Your task to perform on an android device: Open maps Image 0: 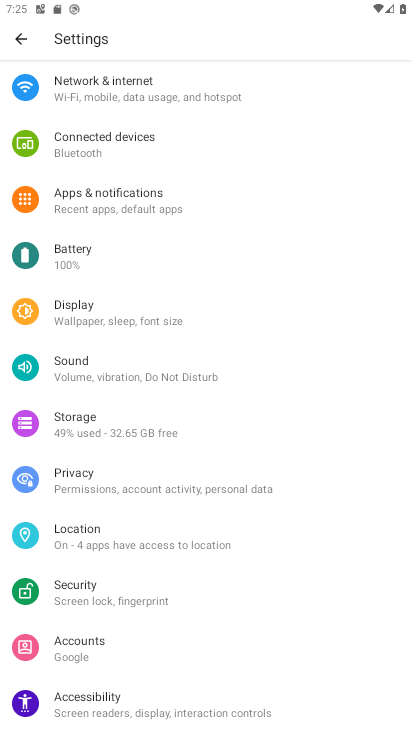
Step 0: press home button
Your task to perform on an android device: Open maps Image 1: 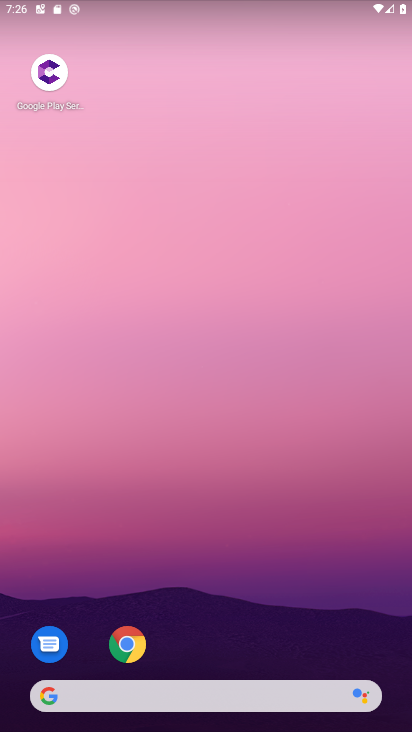
Step 1: drag from (254, 659) to (241, 182)
Your task to perform on an android device: Open maps Image 2: 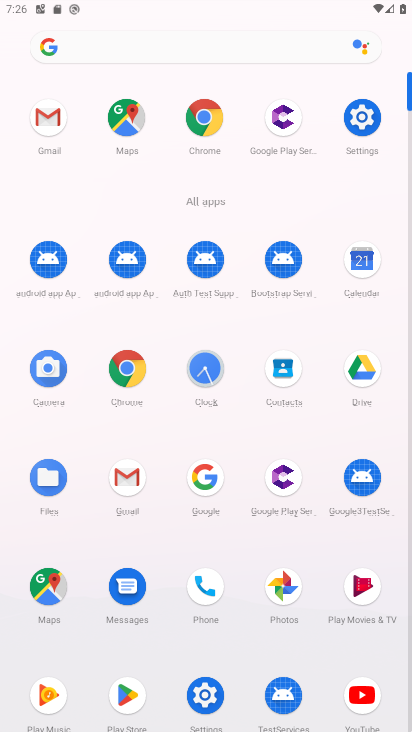
Step 2: click (42, 588)
Your task to perform on an android device: Open maps Image 3: 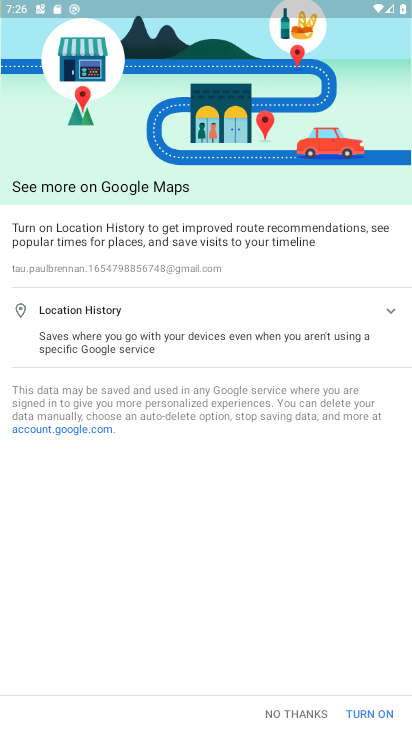
Step 3: click (279, 712)
Your task to perform on an android device: Open maps Image 4: 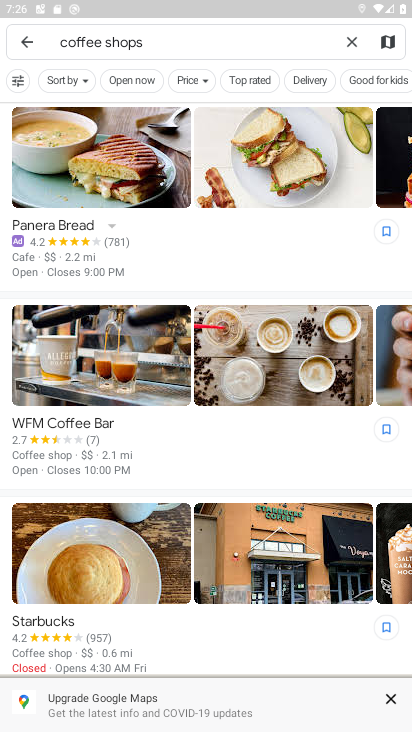
Step 4: task complete